Your task to perform on an android device: Open accessibility settings Image 0: 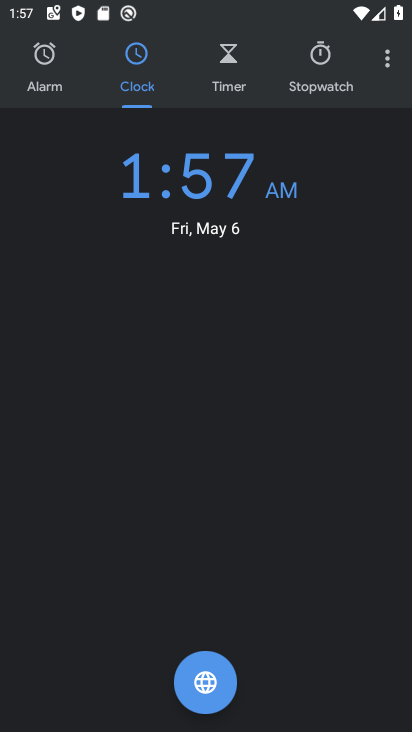
Step 0: press home button
Your task to perform on an android device: Open accessibility settings Image 1: 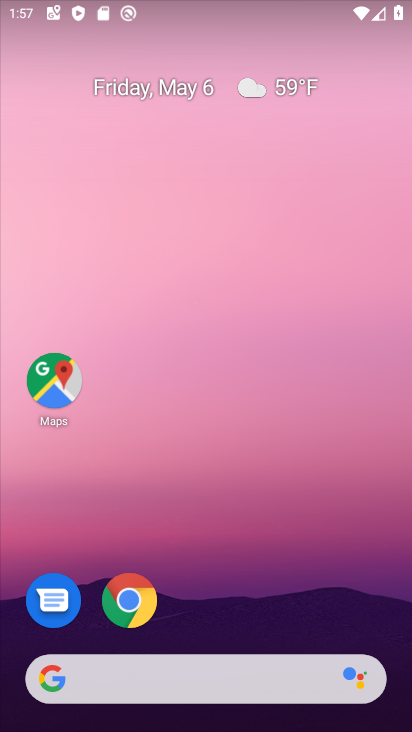
Step 1: drag from (233, 590) to (294, 57)
Your task to perform on an android device: Open accessibility settings Image 2: 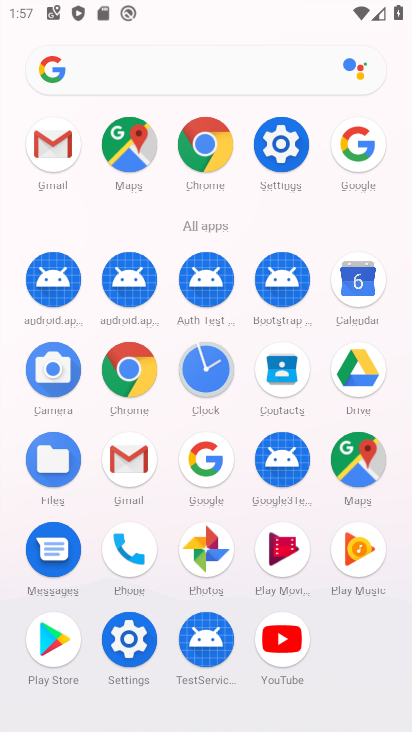
Step 2: click (281, 143)
Your task to perform on an android device: Open accessibility settings Image 3: 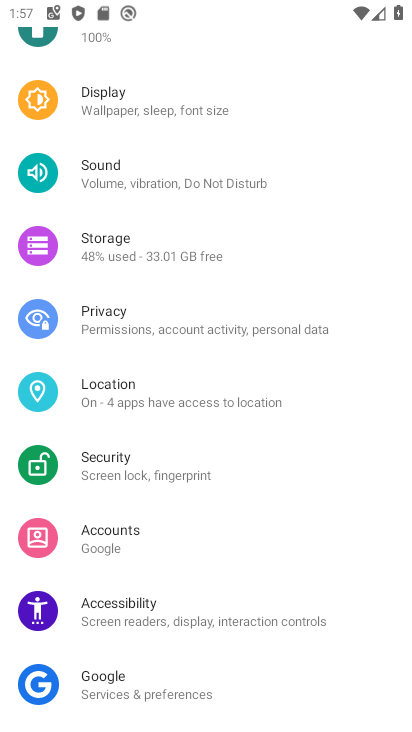
Step 3: click (137, 605)
Your task to perform on an android device: Open accessibility settings Image 4: 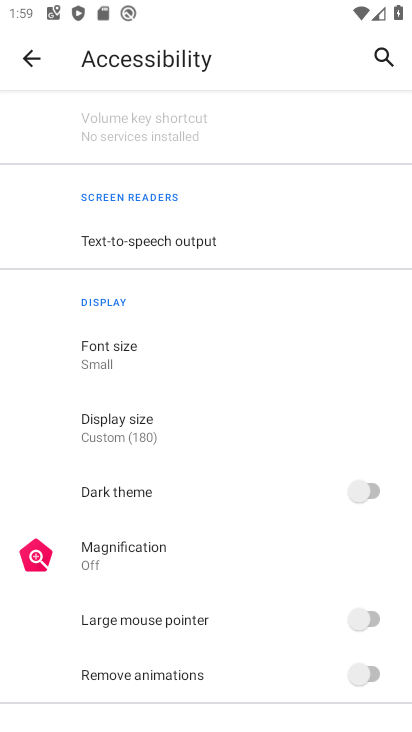
Step 4: task complete